Your task to perform on an android device: Do I have any events tomorrow? Image 0: 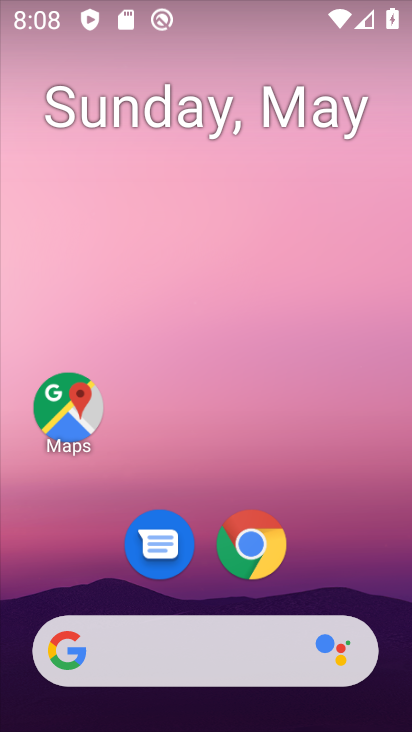
Step 0: drag from (336, 556) to (232, 1)
Your task to perform on an android device: Do I have any events tomorrow? Image 1: 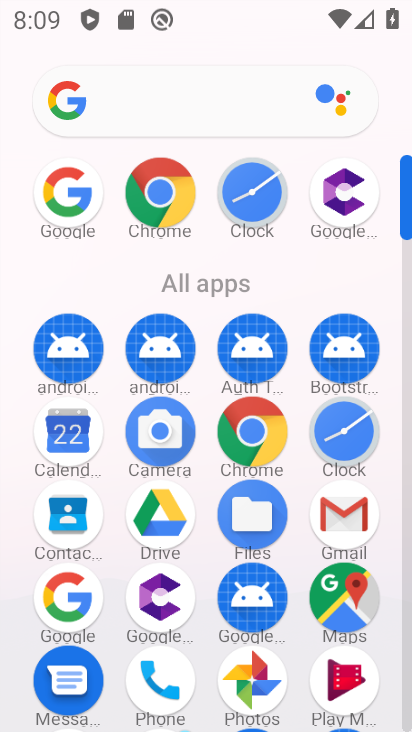
Step 1: drag from (3, 634) to (1, 249)
Your task to perform on an android device: Do I have any events tomorrow? Image 2: 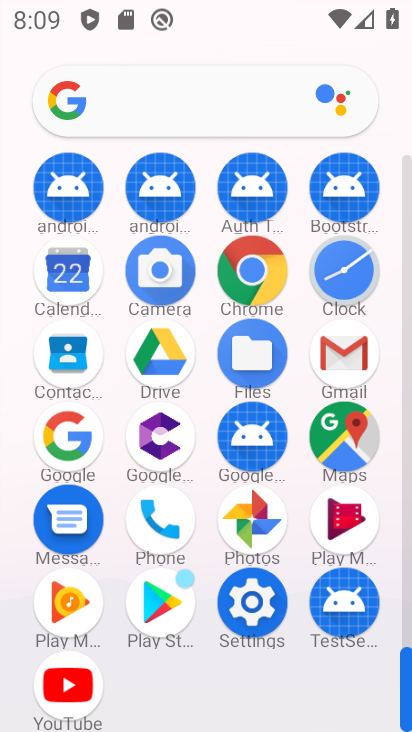
Step 2: click (64, 265)
Your task to perform on an android device: Do I have any events tomorrow? Image 3: 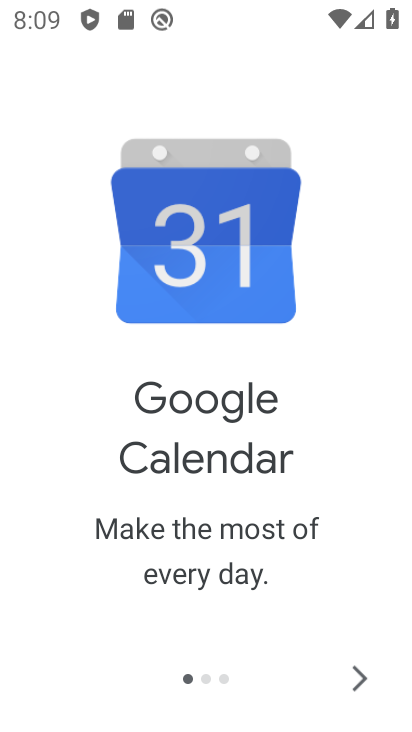
Step 3: click (356, 677)
Your task to perform on an android device: Do I have any events tomorrow? Image 4: 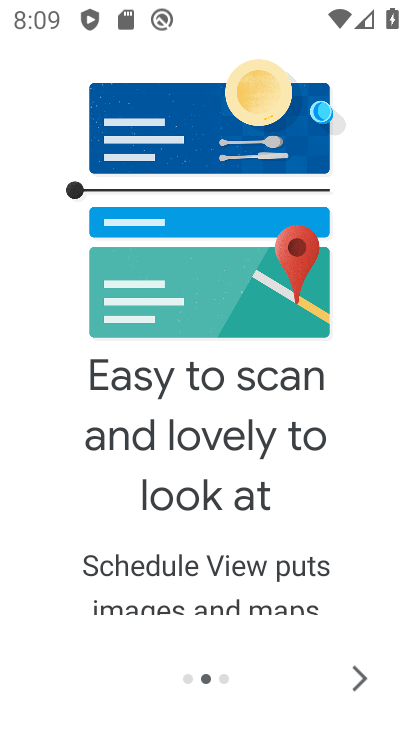
Step 4: click (361, 675)
Your task to perform on an android device: Do I have any events tomorrow? Image 5: 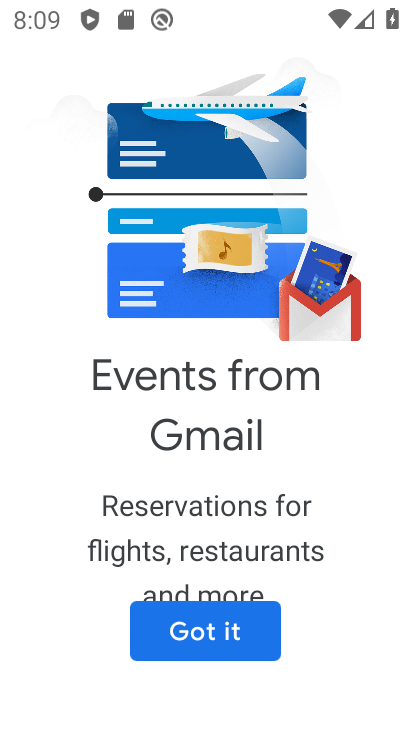
Step 5: click (215, 628)
Your task to perform on an android device: Do I have any events tomorrow? Image 6: 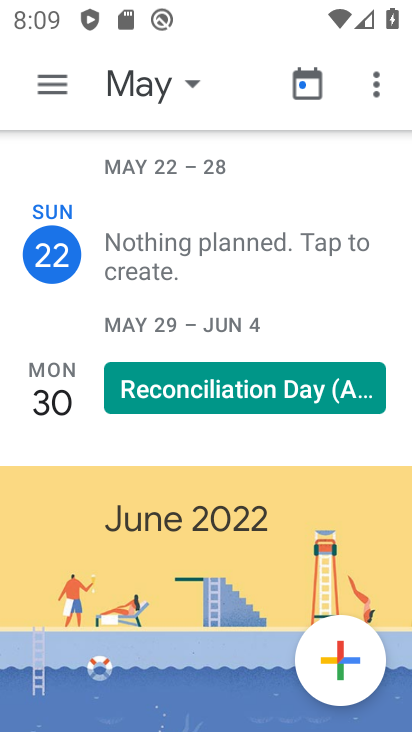
Step 6: click (156, 81)
Your task to perform on an android device: Do I have any events tomorrow? Image 7: 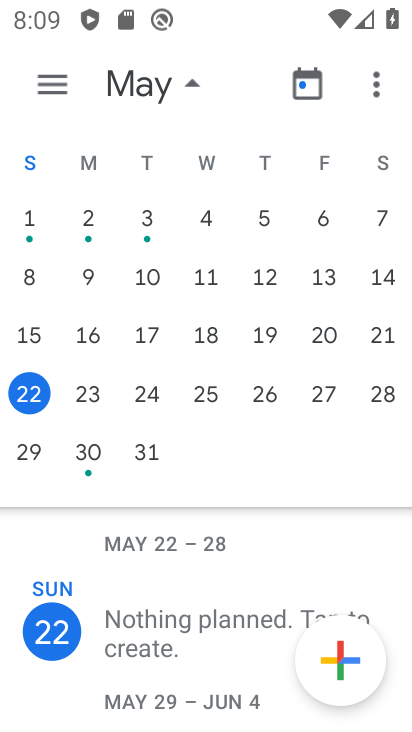
Step 7: click (84, 386)
Your task to perform on an android device: Do I have any events tomorrow? Image 8: 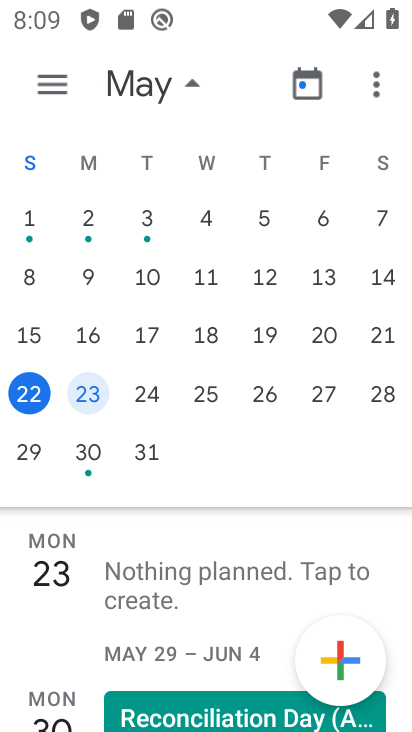
Step 8: task complete